Your task to perform on an android device: toggle airplane mode Image 0: 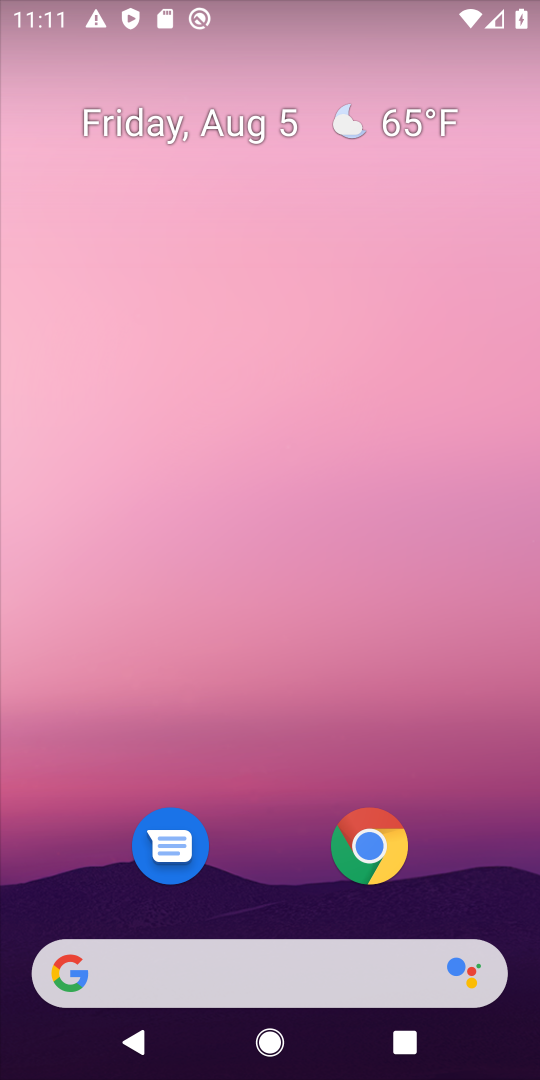
Step 0: drag from (272, 807) to (263, 0)
Your task to perform on an android device: toggle airplane mode Image 1: 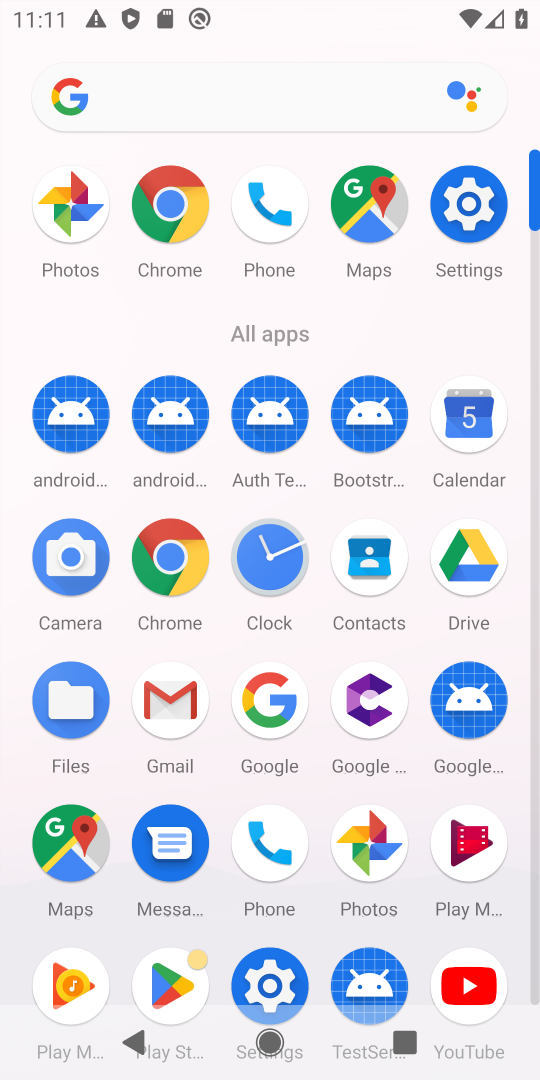
Step 1: click (468, 205)
Your task to perform on an android device: toggle airplane mode Image 2: 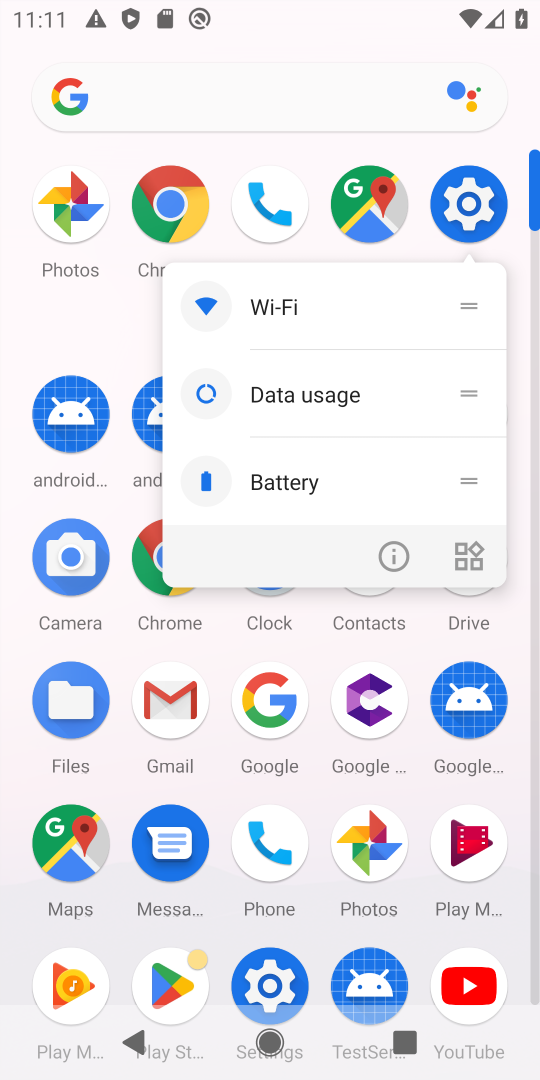
Step 2: click (468, 203)
Your task to perform on an android device: toggle airplane mode Image 3: 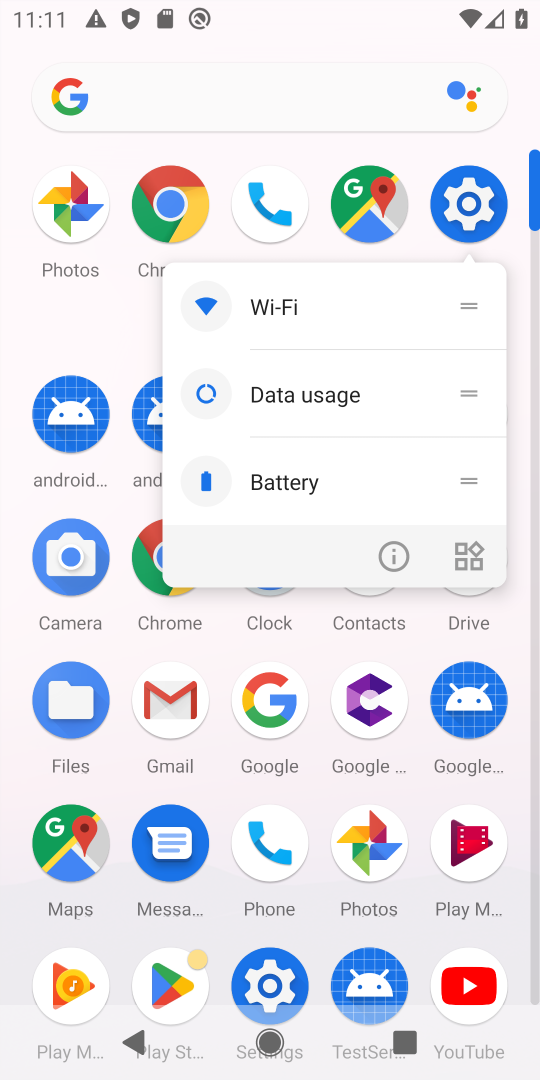
Step 3: click (468, 205)
Your task to perform on an android device: toggle airplane mode Image 4: 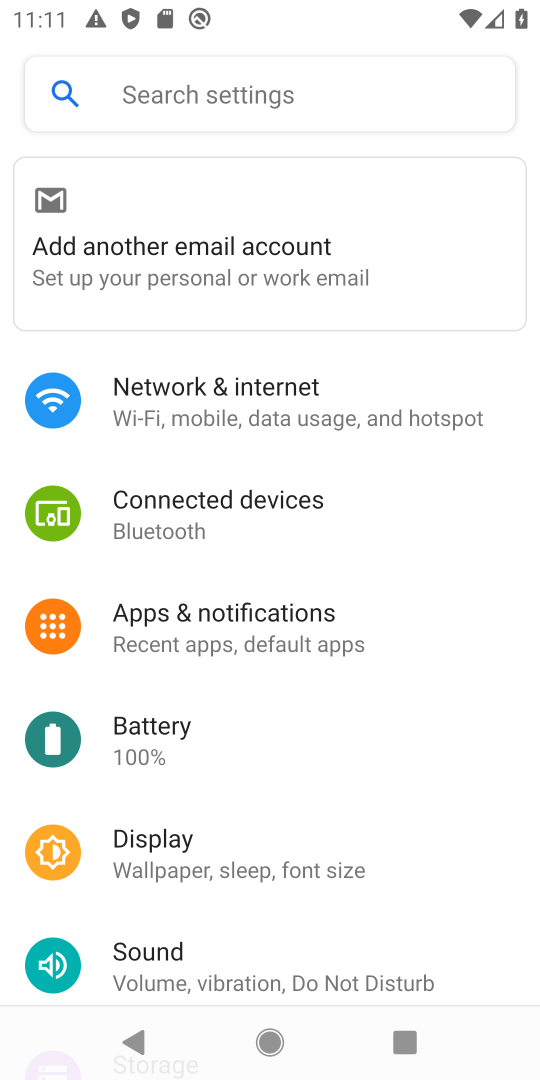
Step 4: click (299, 392)
Your task to perform on an android device: toggle airplane mode Image 5: 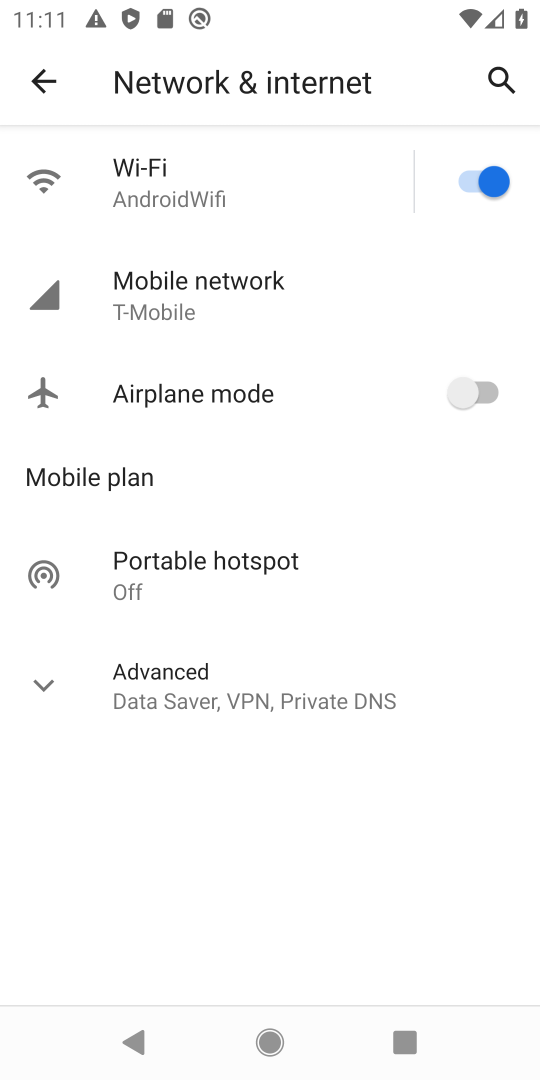
Step 5: click (473, 390)
Your task to perform on an android device: toggle airplane mode Image 6: 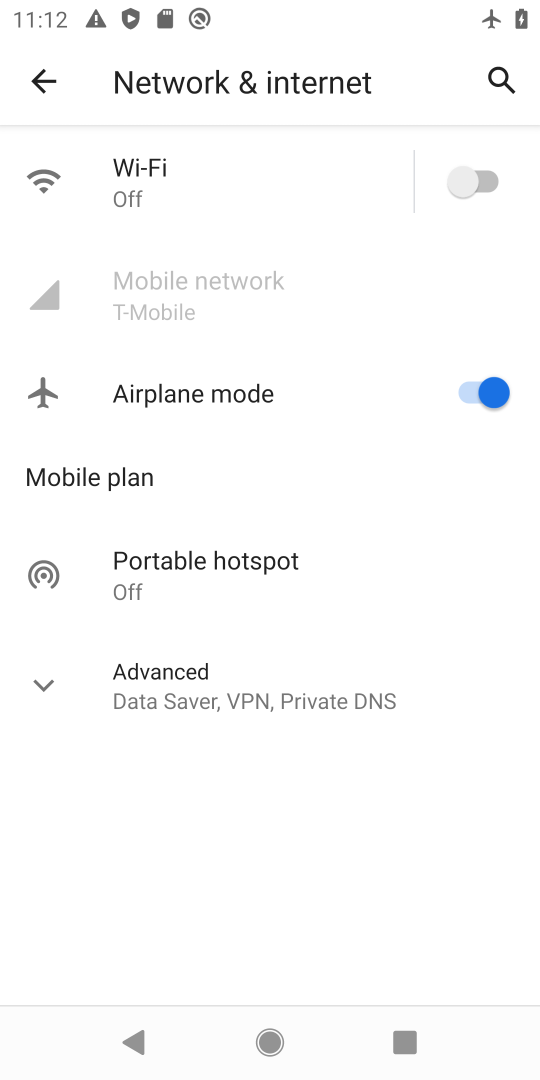
Step 6: task complete